Your task to perform on an android device: Search for seafood restaurants on Google Maps Image 0: 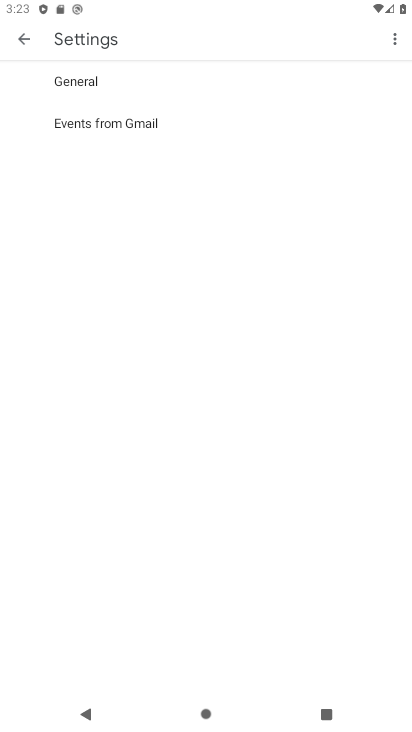
Step 0: press home button
Your task to perform on an android device: Search for seafood restaurants on Google Maps Image 1: 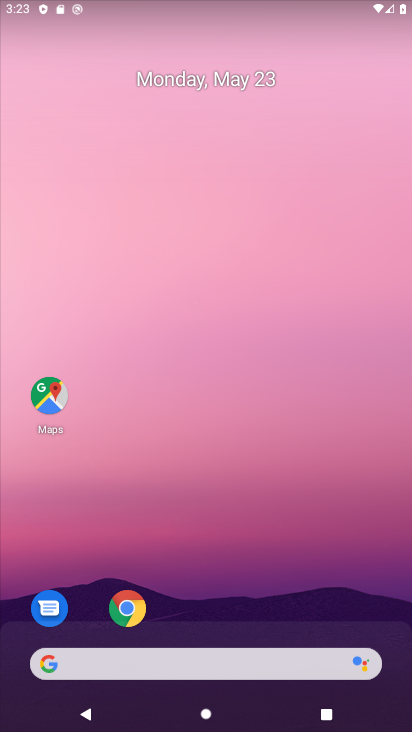
Step 1: click (51, 398)
Your task to perform on an android device: Search for seafood restaurants on Google Maps Image 2: 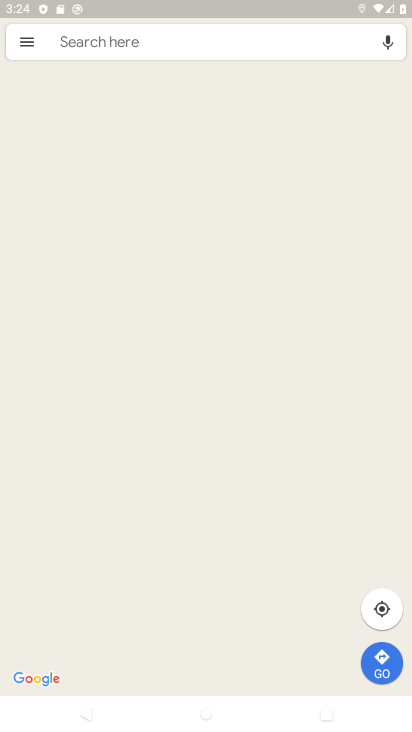
Step 2: click (192, 40)
Your task to perform on an android device: Search for seafood restaurants on Google Maps Image 3: 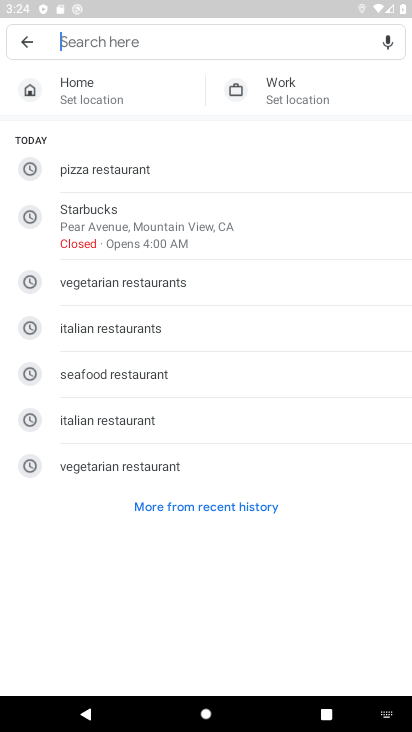
Step 3: click (131, 378)
Your task to perform on an android device: Search for seafood restaurants on Google Maps Image 4: 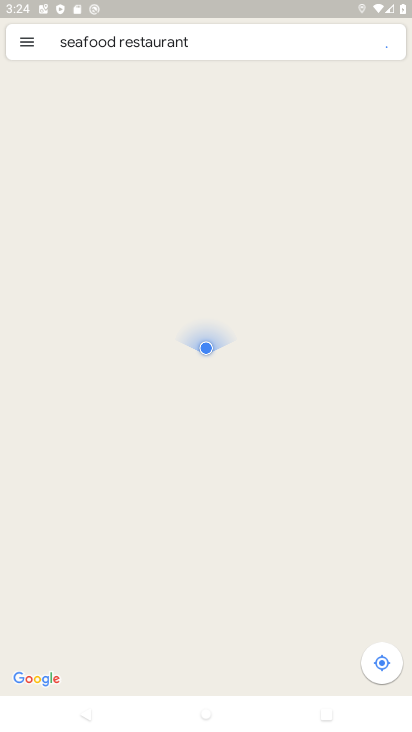
Step 4: task complete